Your task to perform on an android device: Search for usb-a on newegg.com, select the first entry, add it to the cart, then select checkout. Image 0: 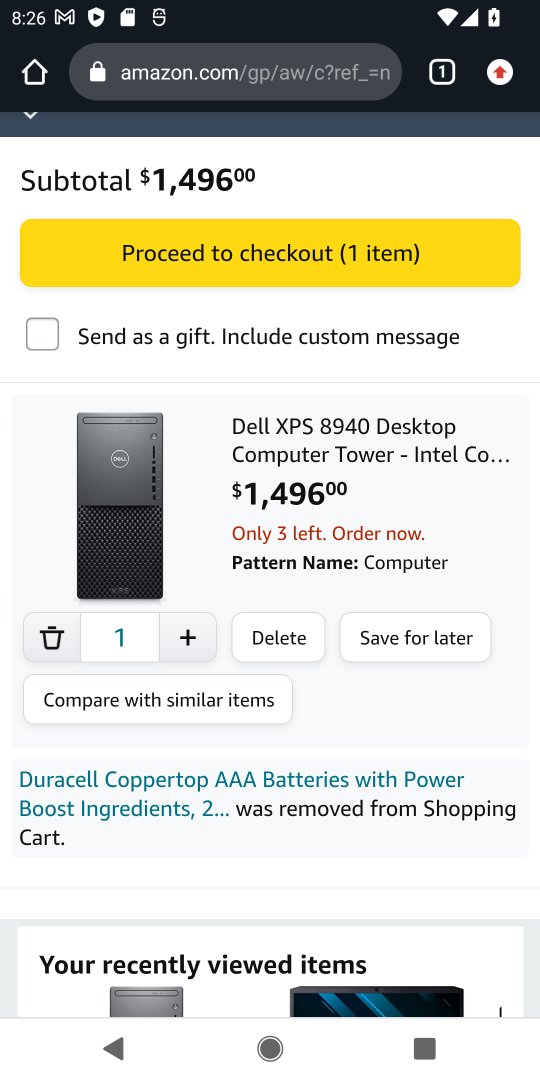
Step 0: press home button
Your task to perform on an android device: Search for usb-a on newegg.com, select the first entry, add it to the cart, then select checkout. Image 1: 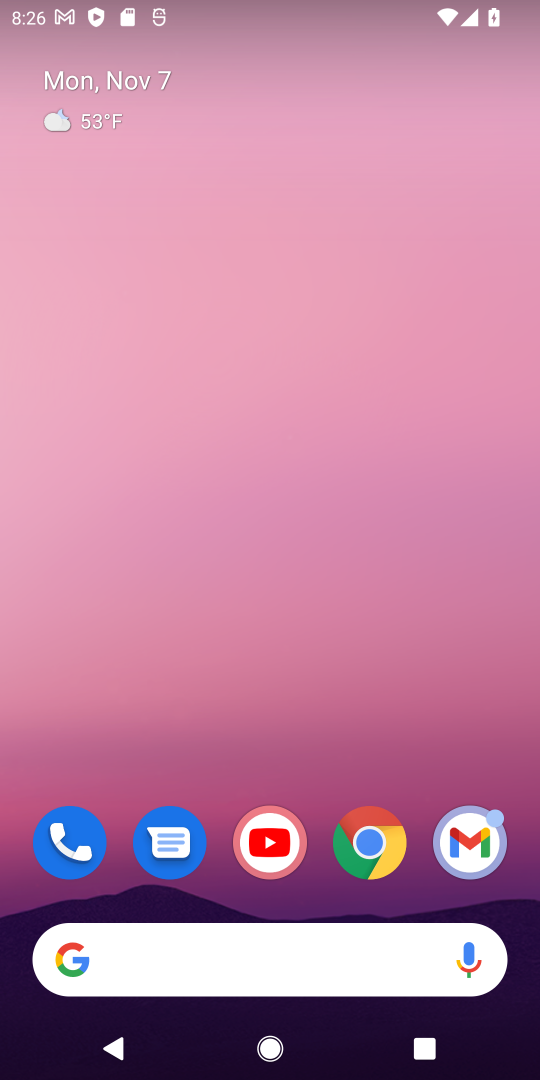
Step 1: click (372, 844)
Your task to perform on an android device: Search for usb-a on newegg.com, select the first entry, add it to the cart, then select checkout. Image 2: 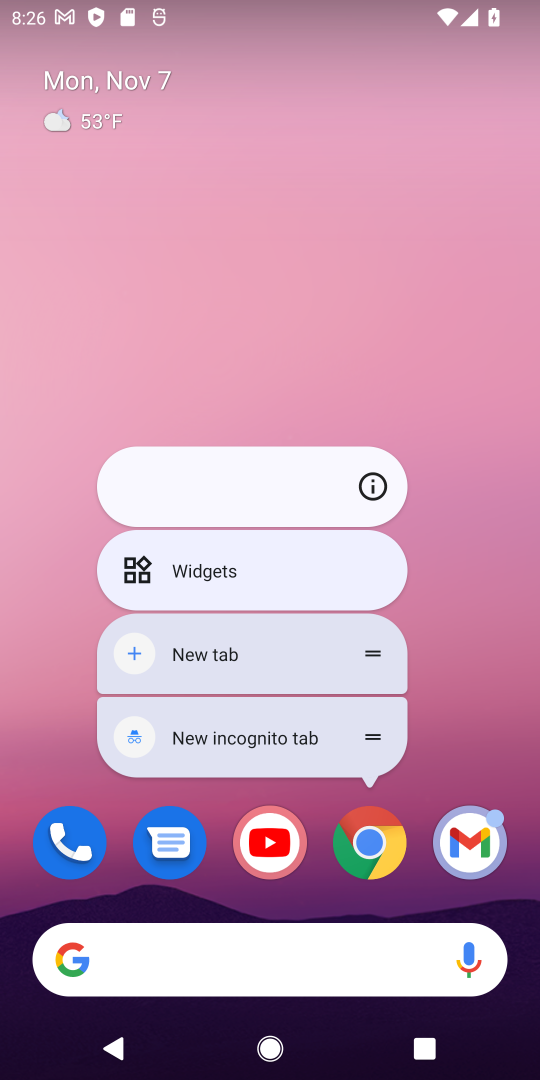
Step 2: click (378, 845)
Your task to perform on an android device: Search for usb-a on newegg.com, select the first entry, add it to the cart, then select checkout. Image 3: 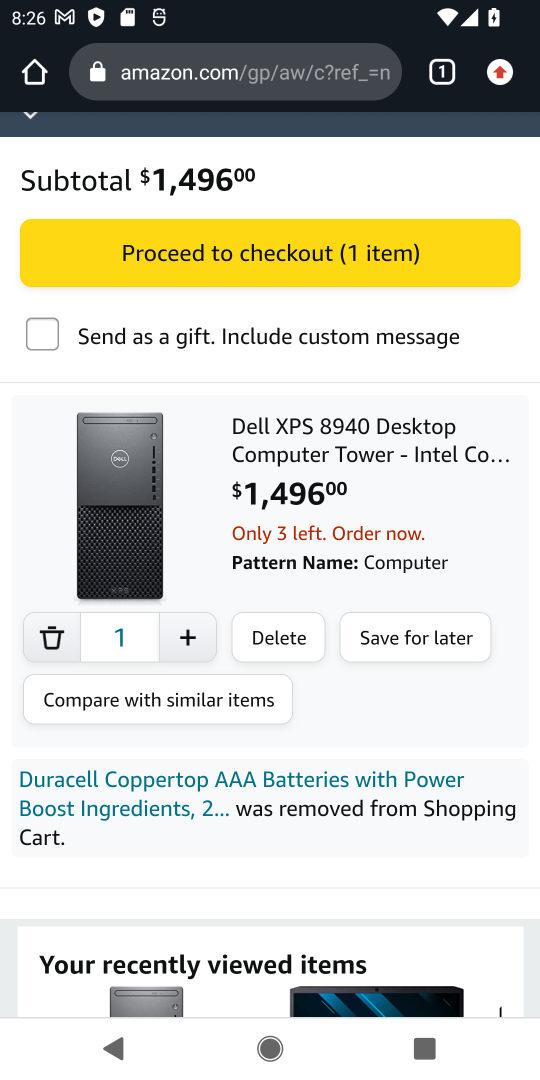
Step 3: click (308, 71)
Your task to perform on an android device: Search for usb-a on newegg.com, select the first entry, add it to the cart, then select checkout. Image 4: 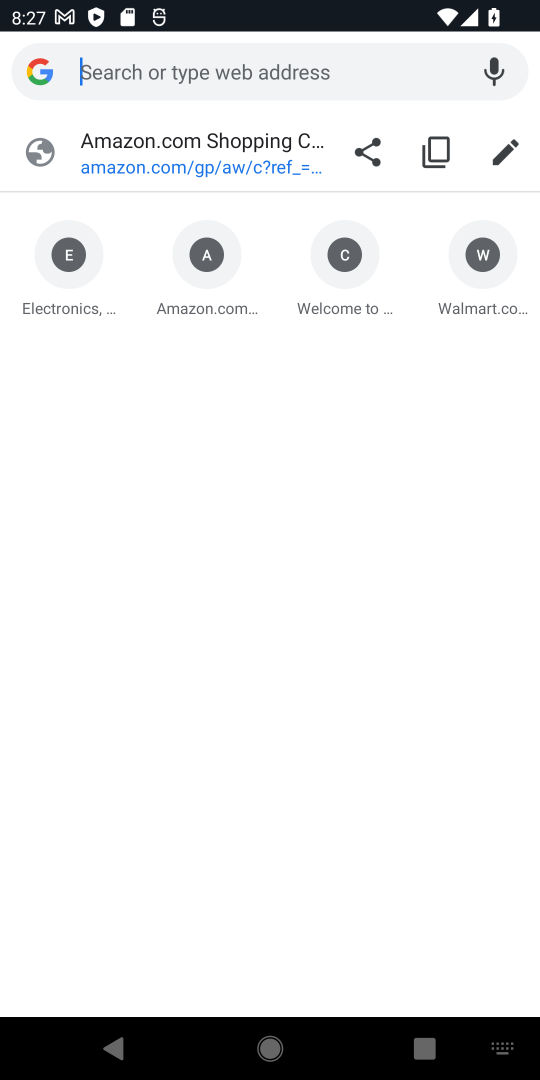
Step 4: type "newegg"
Your task to perform on an android device: Search for usb-a on newegg.com, select the first entry, add it to the cart, then select checkout. Image 5: 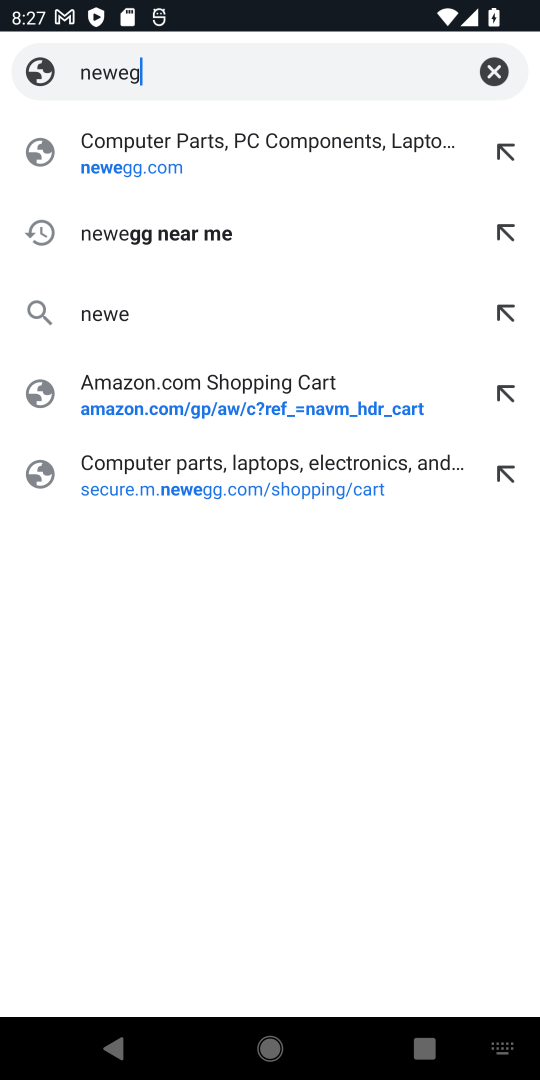
Step 5: press enter
Your task to perform on an android device: Search for usb-a on newegg.com, select the first entry, add it to the cart, then select checkout. Image 6: 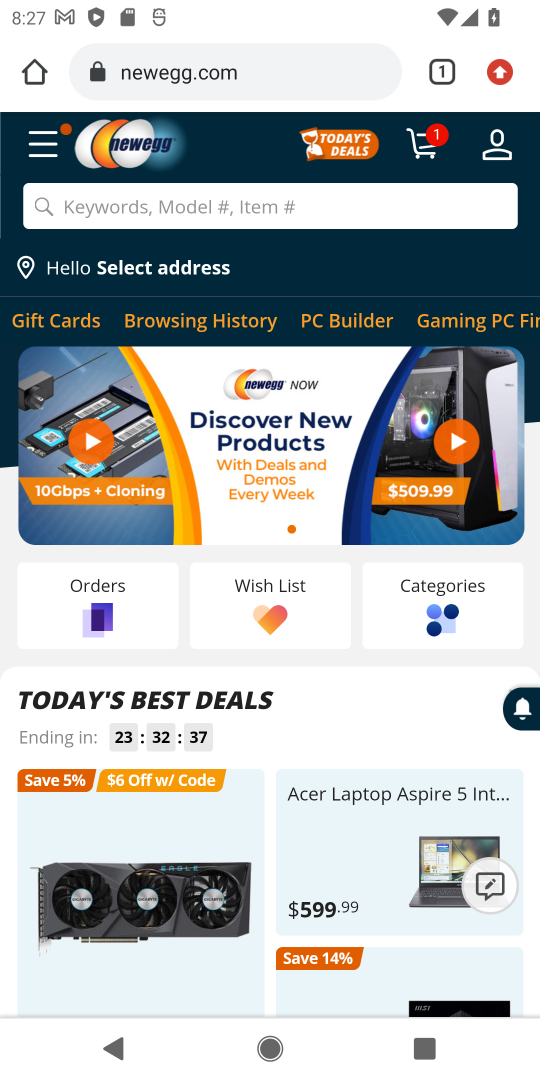
Step 6: click (249, 202)
Your task to perform on an android device: Search for usb-a on newegg.com, select the first entry, add it to the cart, then select checkout. Image 7: 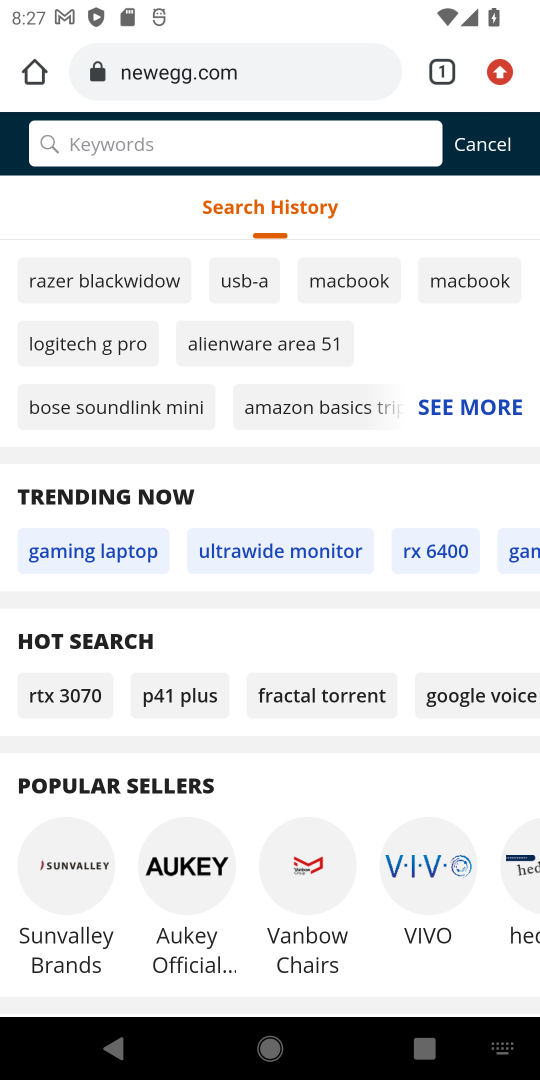
Step 7: type " usb-a"
Your task to perform on an android device: Search for usb-a on newegg.com, select the first entry, add it to the cart, then select checkout. Image 8: 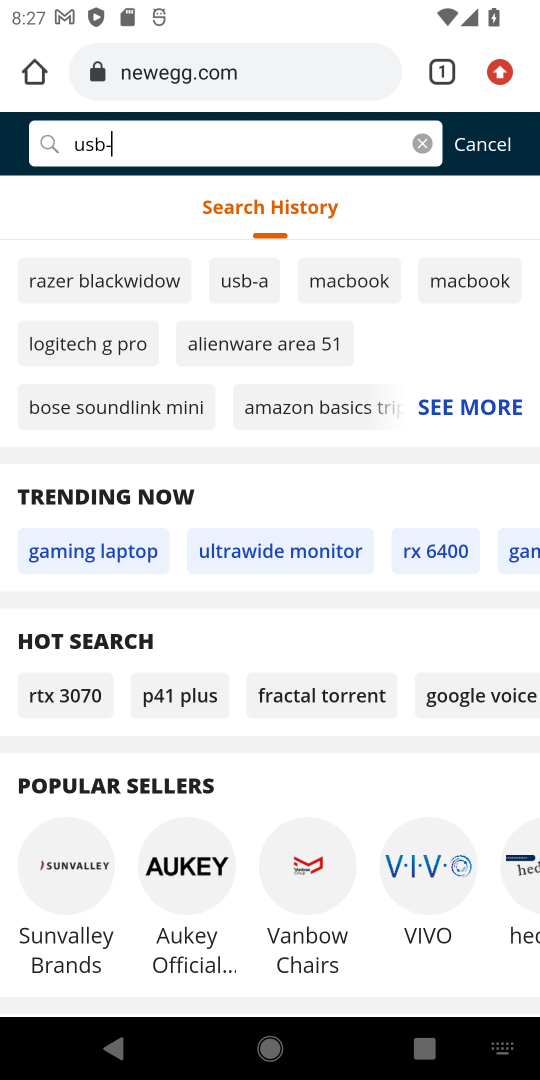
Step 8: press enter
Your task to perform on an android device: Search for usb-a on newegg.com, select the first entry, add it to the cart, then select checkout. Image 9: 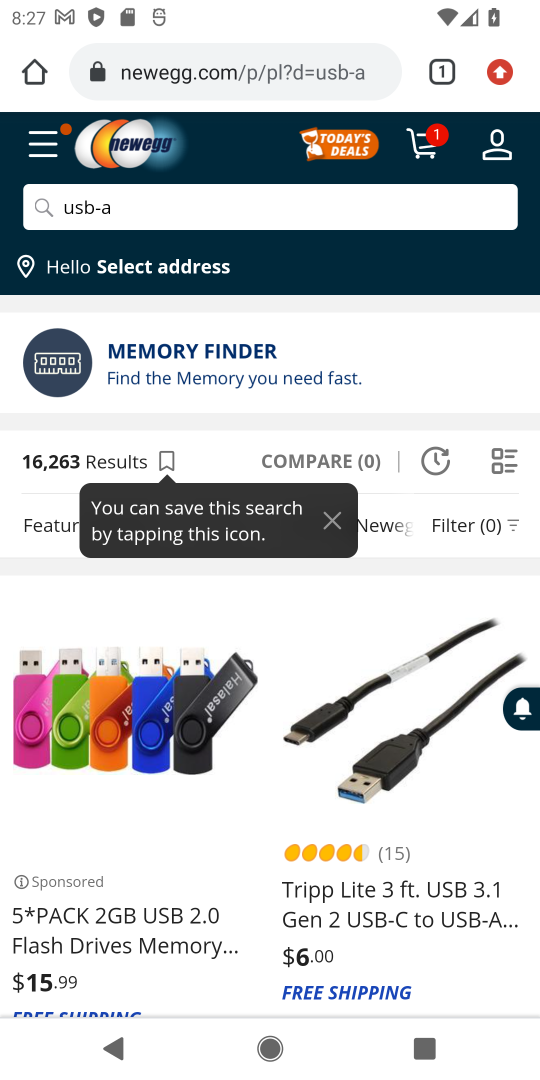
Step 9: task complete